Your task to perform on an android device: Open Google Chrome and open the bookmarks view Image 0: 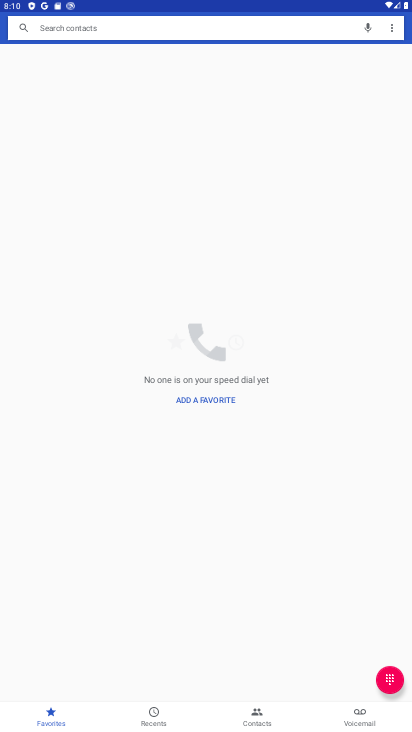
Step 0: press home button
Your task to perform on an android device: Open Google Chrome and open the bookmarks view Image 1: 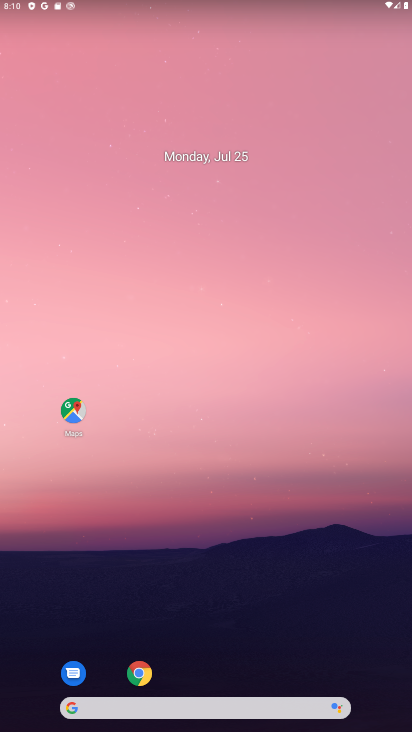
Step 1: click (140, 678)
Your task to perform on an android device: Open Google Chrome and open the bookmarks view Image 2: 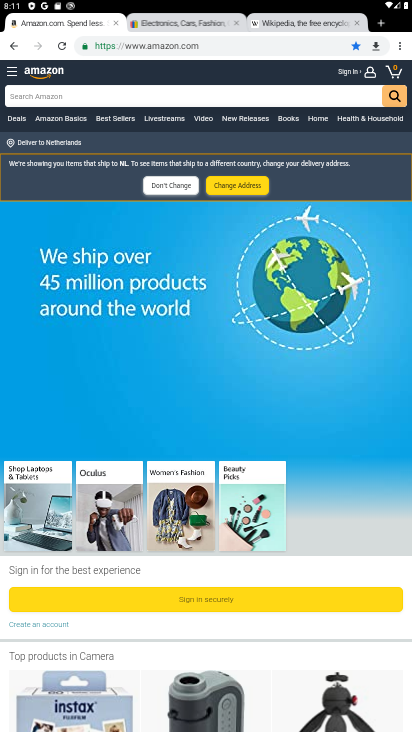
Step 2: click (393, 42)
Your task to perform on an android device: Open Google Chrome and open the bookmarks view Image 3: 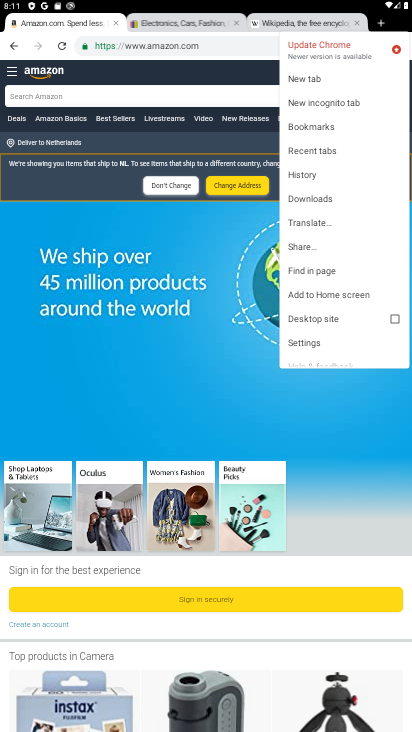
Step 3: click (341, 127)
Your task to perform on an android device: Open Google Chrome and open the bookmarks view Image 4: 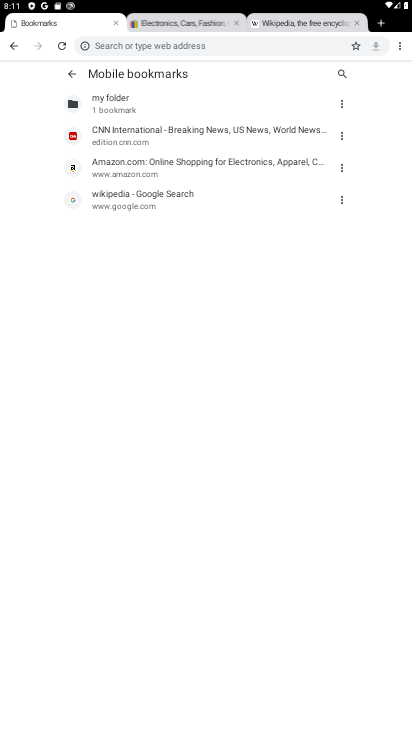
Step 4: task complete